Your task to perform on an android device: Turn on the flashlight Image 0: 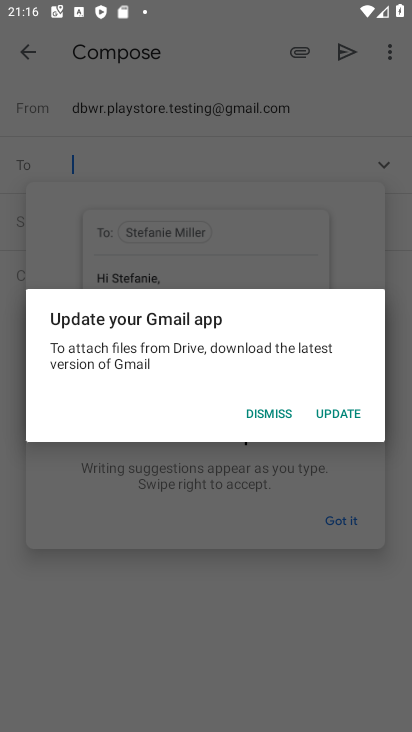
Step 0: press home button
Your task to perform on an android device: Turn on the flashlight Image 1: 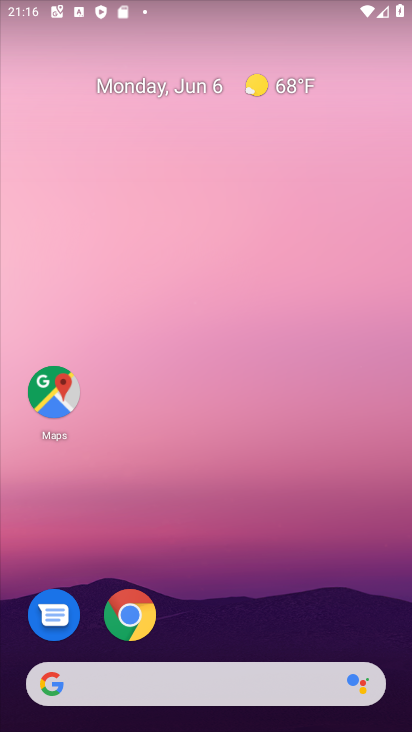
Step 1: drag from (399, 624) to (350, 99)
Your task to perform on an android device: Turn on the flashlight Image 2: 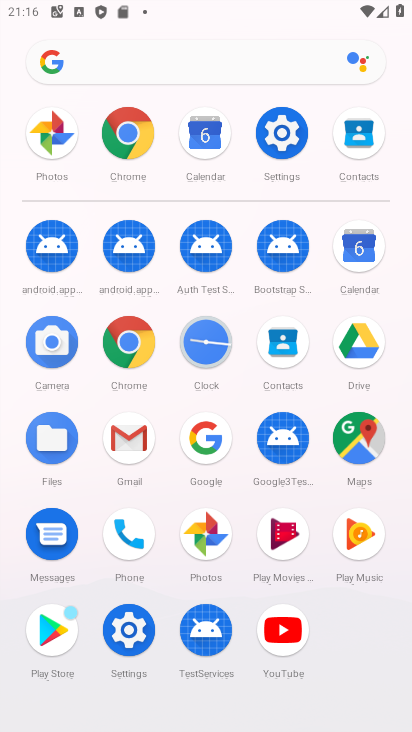
Step 2: click (280, 130)
Your task to perform on an android device: Turn on the flashlight Image 3: 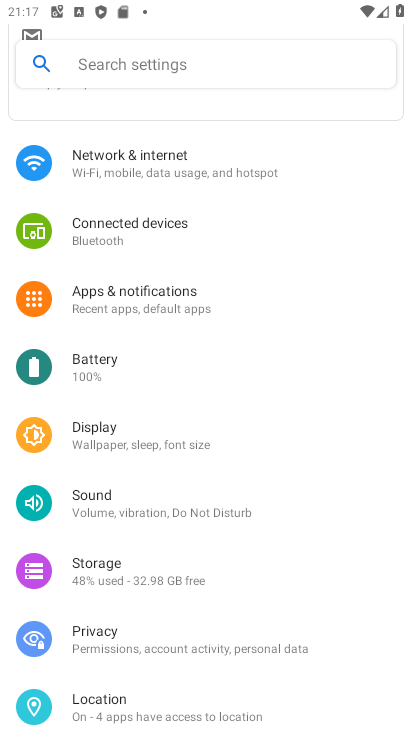
Step 3: drag from (247, 682) to (236, 227)
Your task to perform on an android device: Turn on the flashlight Image 4: 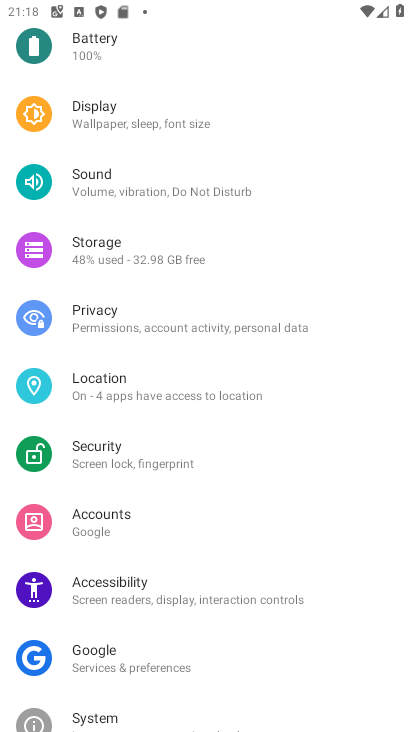
Step 4: click (134, 121)
Your task to perform on an android device: Turn on the flashlight Image 5: 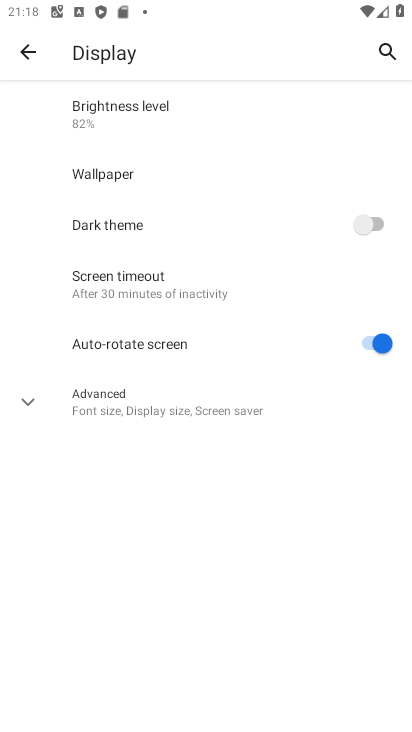
Step 5: task complete